Your task to perform on an android device: change alarm snooze length Image 0: 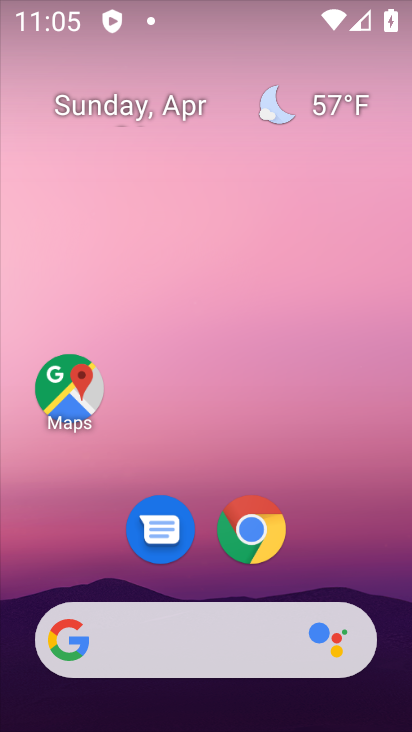
Step 0: drag from (276, 460) to (207, 34)
Your task to perform on an android device: change alarm snooze length Image 1: 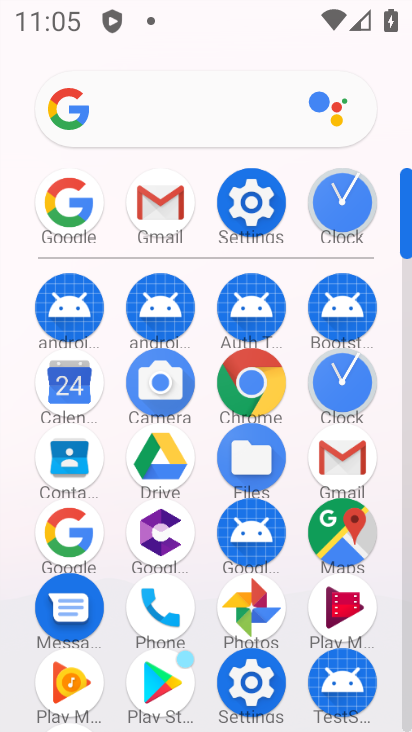
Step 1: click (250, 687)
Your task to perform on an android device: change alarm snooze length Image 2: 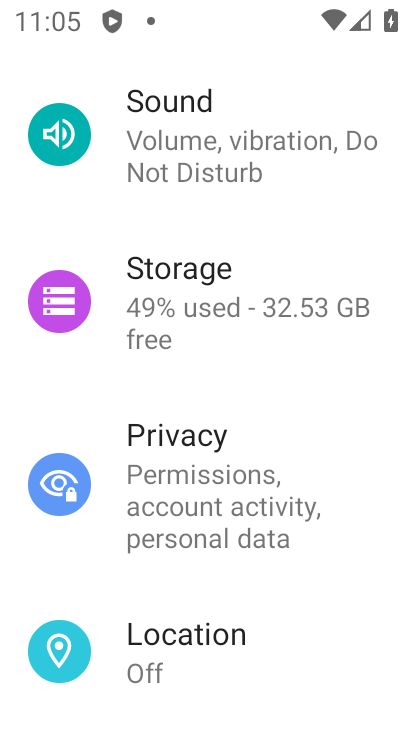
Step 2: press home button
Your task to perform on an android device: change alarm snooze length Image 3: 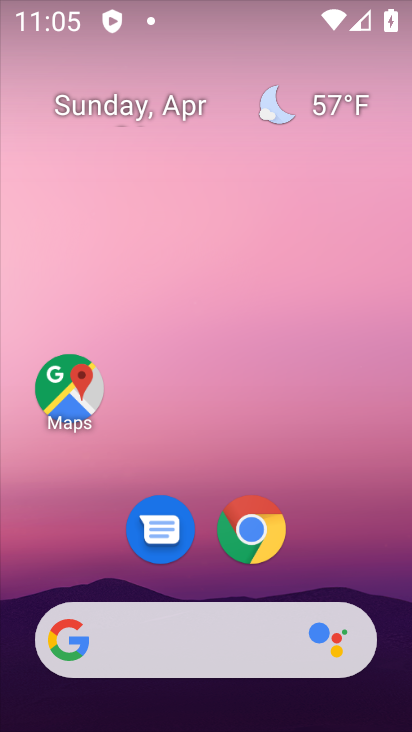
Step 3: drag from (342, 564) to (205, 30)
Your task to perform on an android device: change alarm snooze length Image 4: 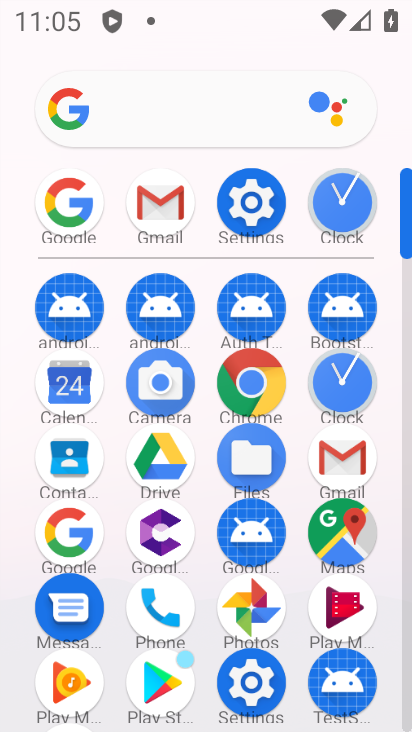
Step 4: click (338, 380)
Your task to perform on an android device: change alarm snooze length Image 5: 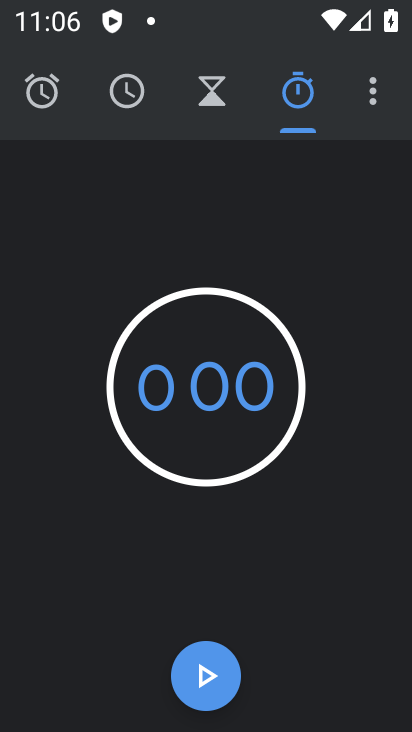
Step 5: click (372, 95)
Your task to perform on an android device: change alarm snooze length Image 6: 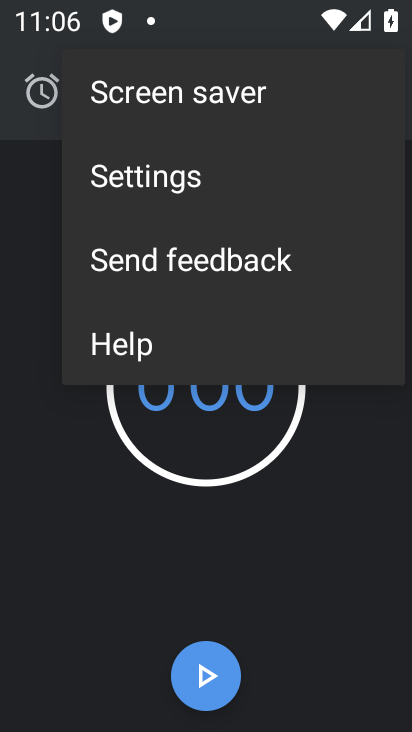
Step 6: click (192, 179)
Your task to perform on an android device: change alarm snooze length Image 7: 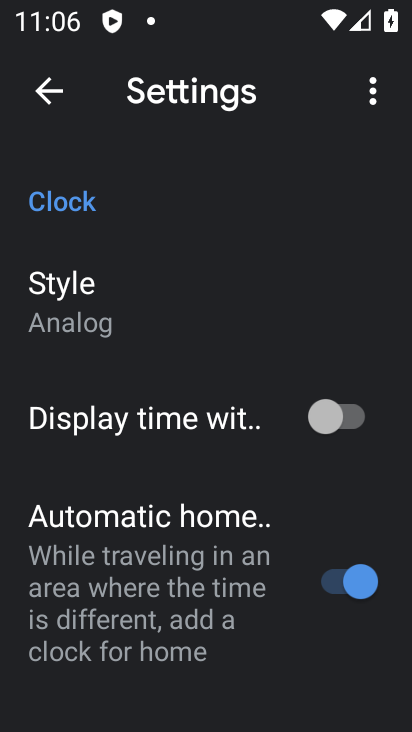
Step 7: drag from (138, 552) to (118, 160)
Your task to perform on an android device: change alarm snooze length Image 8: 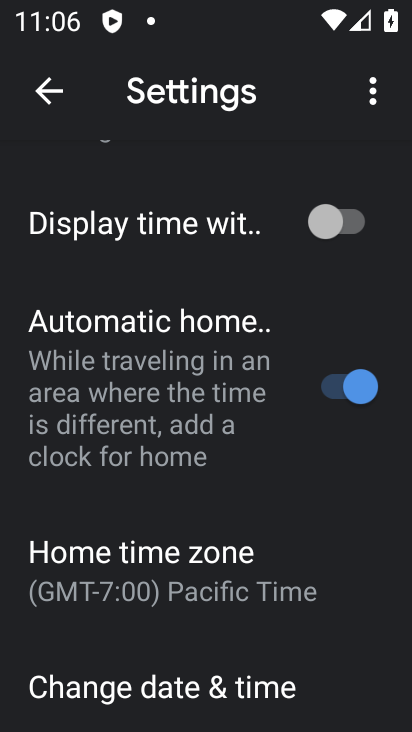
Step 8: drag from (193, 621) to (170, 161)
Your task to perform on an android device: change alarm snooze length Image 9: 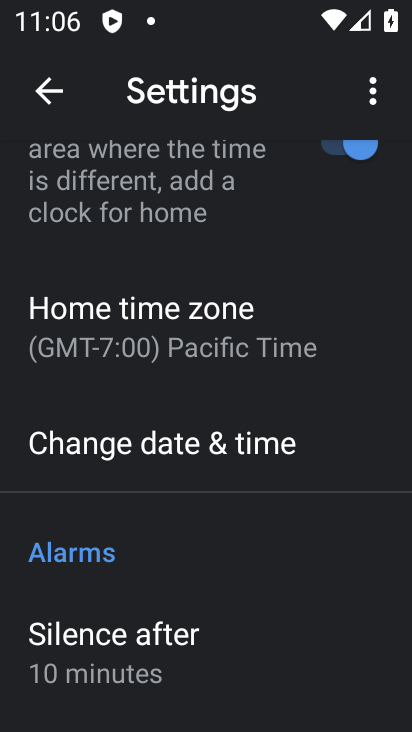
Step 9: drag from (224, 619) to (176, 262)
Your task to perform on an android device: change alarm snooze length Image 10: 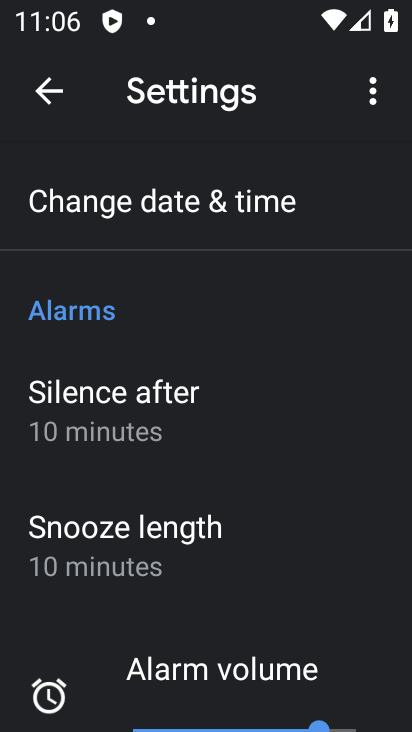
Step 10: click (233, 554)
Your task to perform on an android device: change alarm snooze length Image 11: 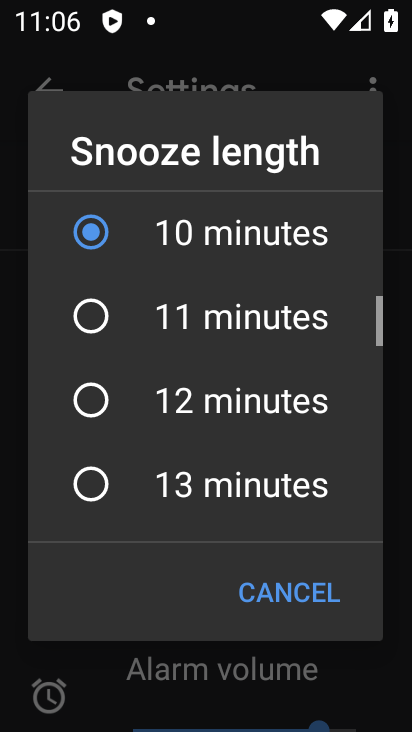
Step 11: click (233, 554)
Your task to perform on an android device: change alarm snooze length Image 12: 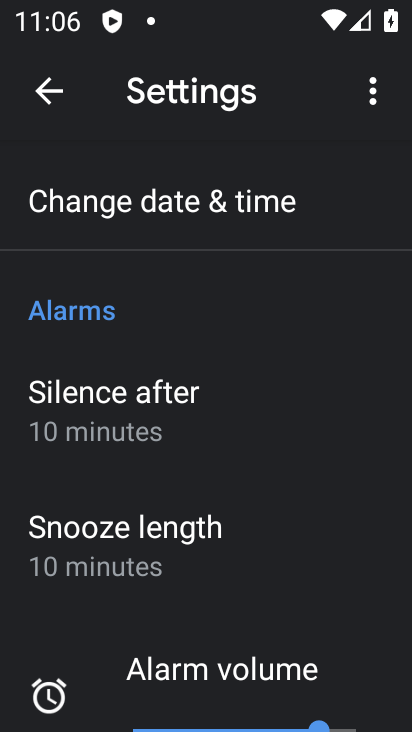
Step 12: click (180, 554)
Your task to perform on an android device: change alarm snooze length Image 13: 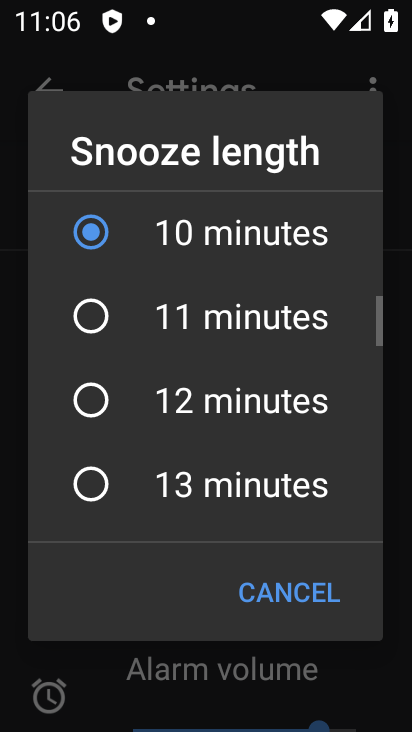
Step 13: click (191, 326)
Your task to perform on an android device: change alarm snooze length Image 14: 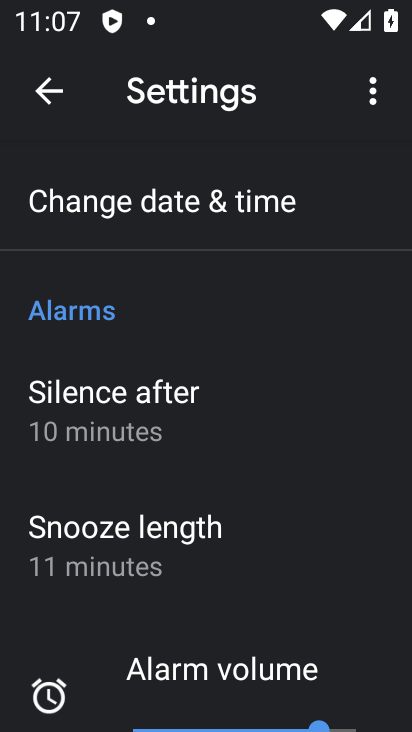
Step 14: task complete